Your task to perform on an android device: Go to Reddit.com Image 0: 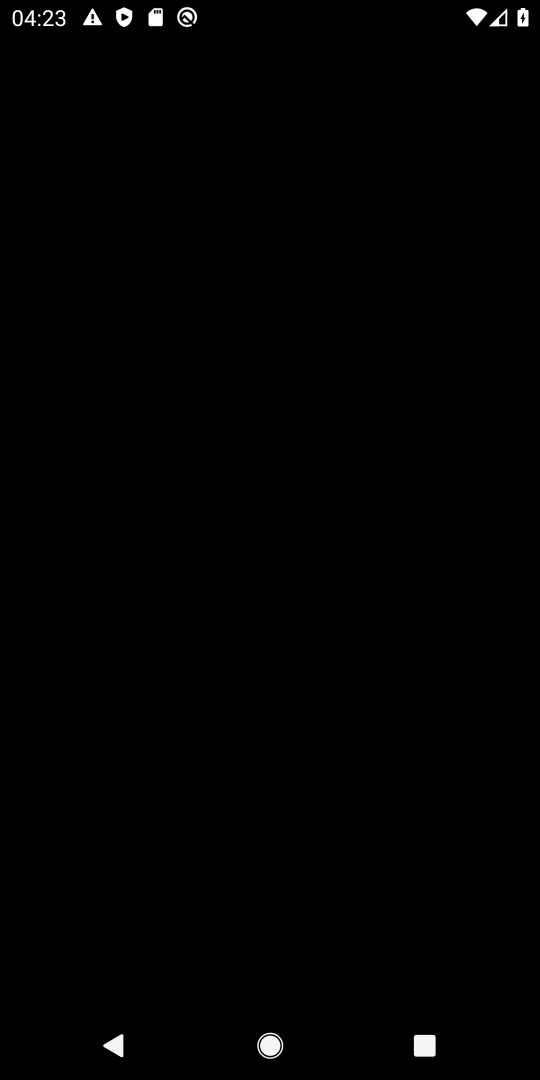
Step 0: press home button
Your task to perform on an android device: Go to Reddit.com Image 1: 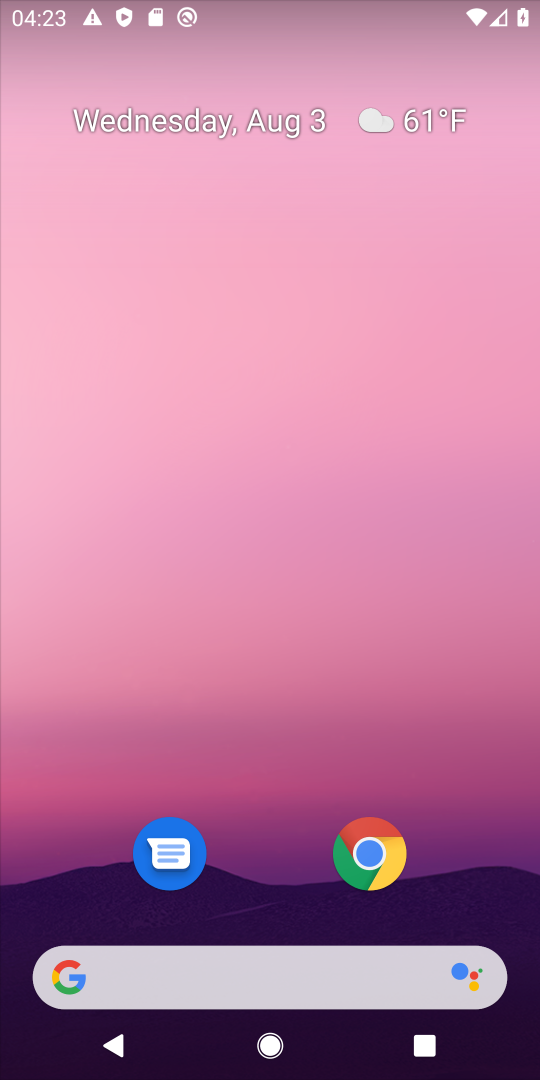
Step 1: drag from (265, 737) to (257, 373)
Your task to perform on an android device: Go to Reddit.com Image 2: 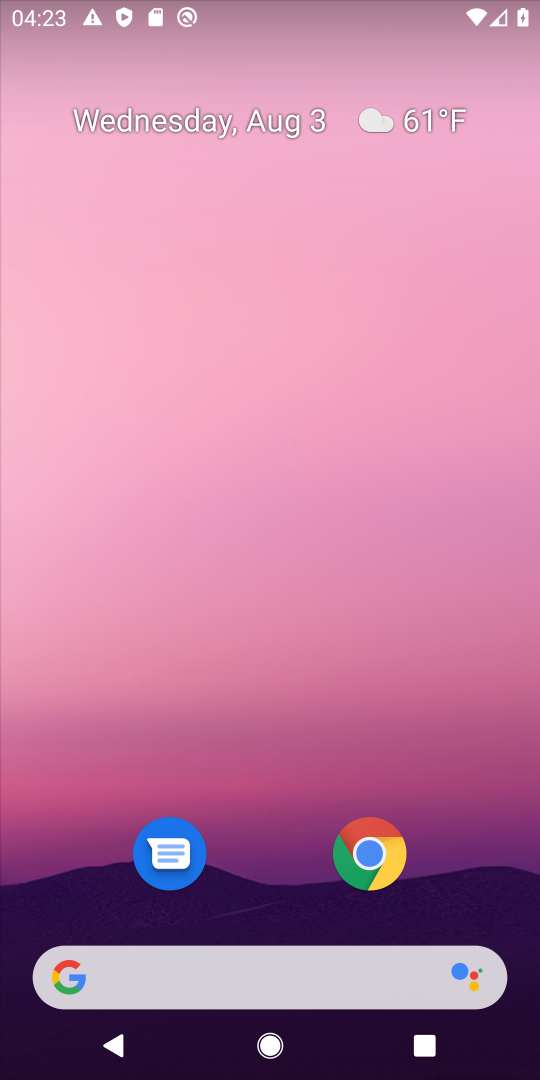
Step 2: drag from (259, 755) to (281, 71)
Your task to perform on an android device: Go to Reddit.com Image 3: 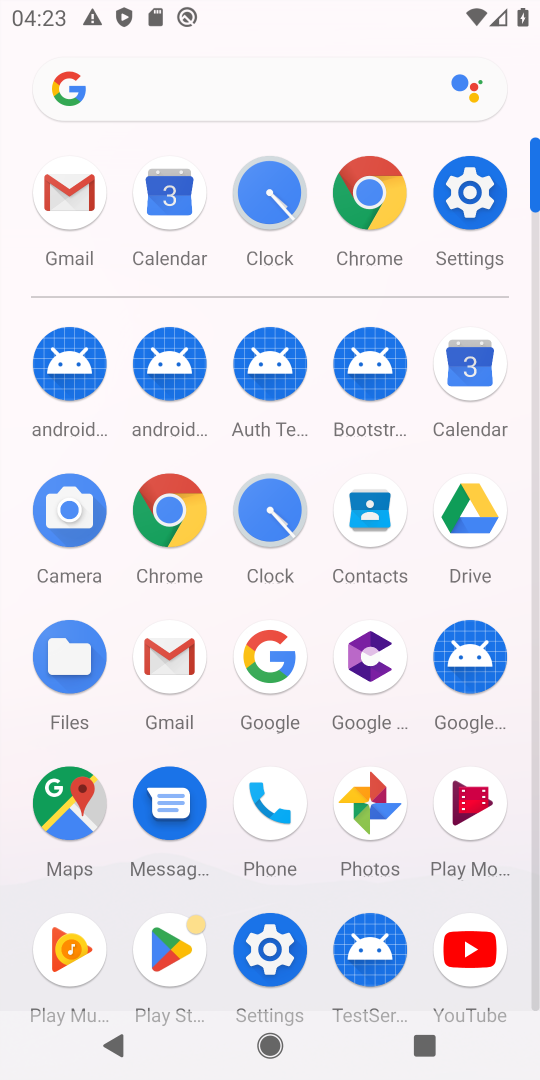
Step 3: click (168, 510)
Your task to perform on an android device: Go to Reddit.com Image 4: 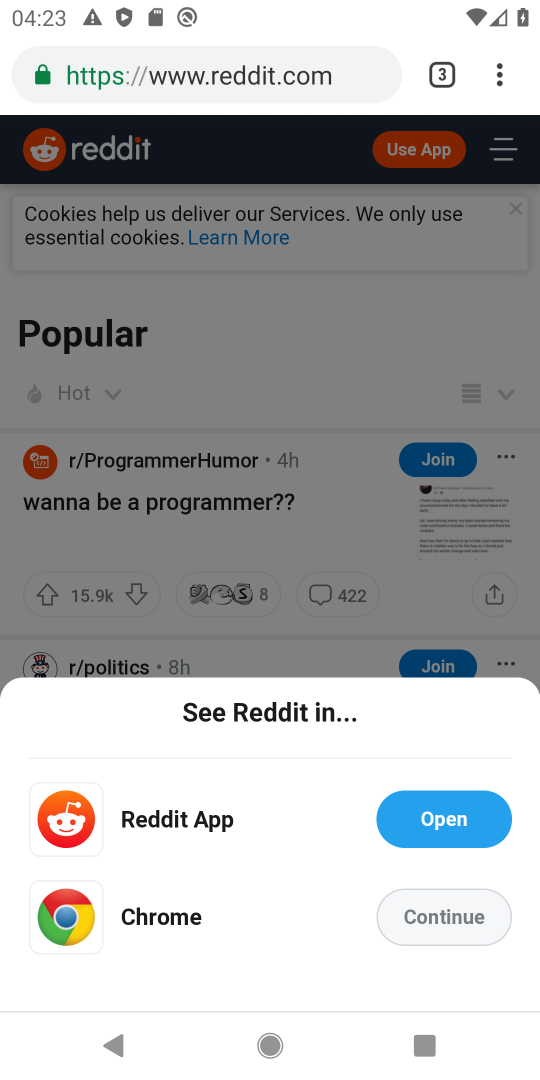
Step 4: task complete